Your task to perform on an android device: turn on showing notifications on the lock screen Image 0: 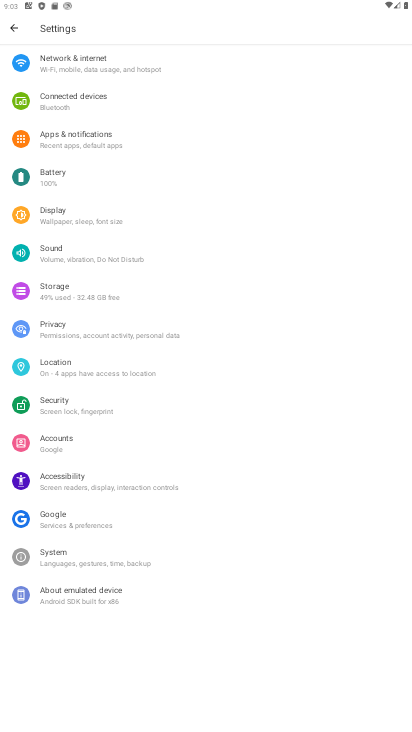
Step 0: click (94, 136)
Your task to perform on an android device: turn on showing notifications on the lock screen Image 1: 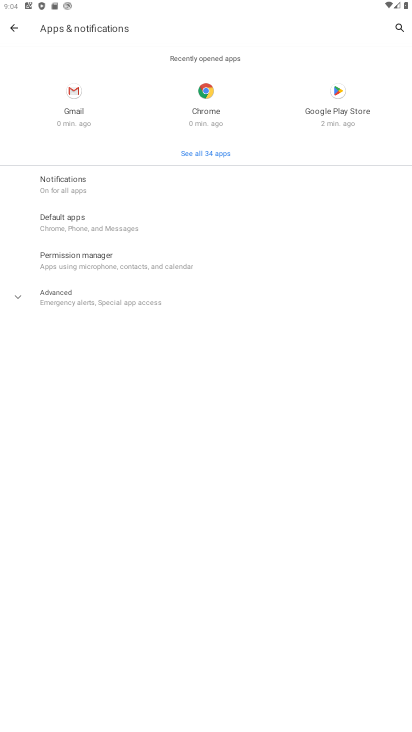
Step 1: click (114, 171)
Your task to perform on an android device: turn on showing notifications on the lock screen Image 2: 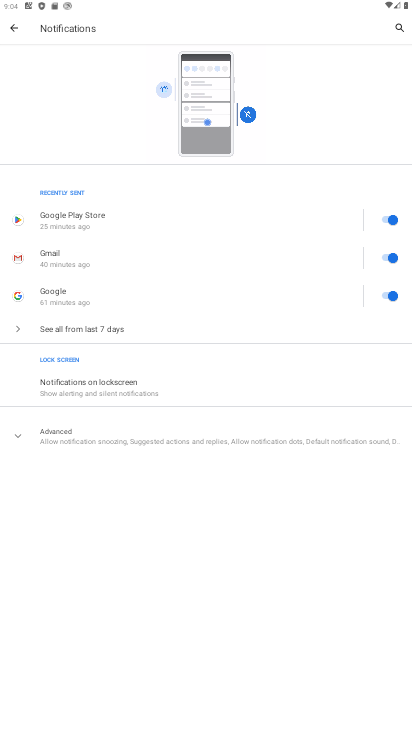
Step 2: click (128, 387)
Your task to perform on an android device: turn on showing notifications on the lock screen Image 3: 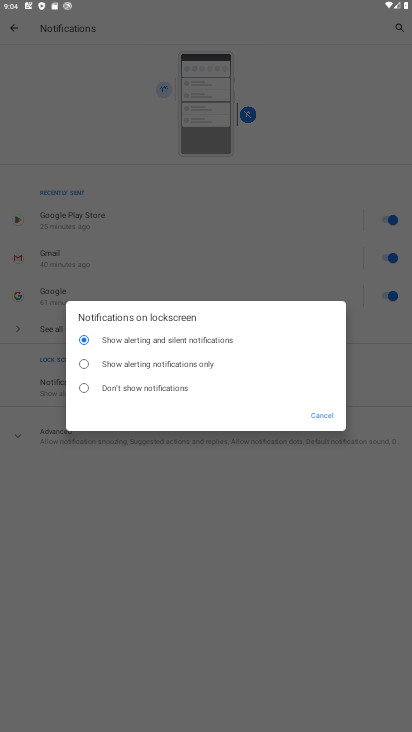
Step 3: click (118, 361)
Your task to perform on an android device: turn on showing notifications on the lock screen Image 4: 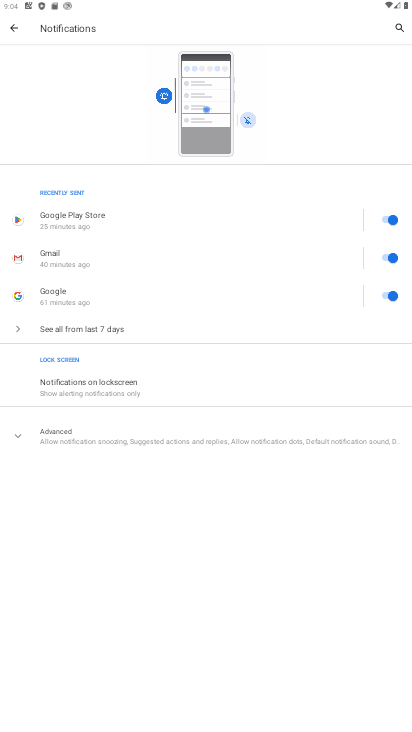
Step 4: task complete